Your task to perform on an android device: Open Android settings Image 0: 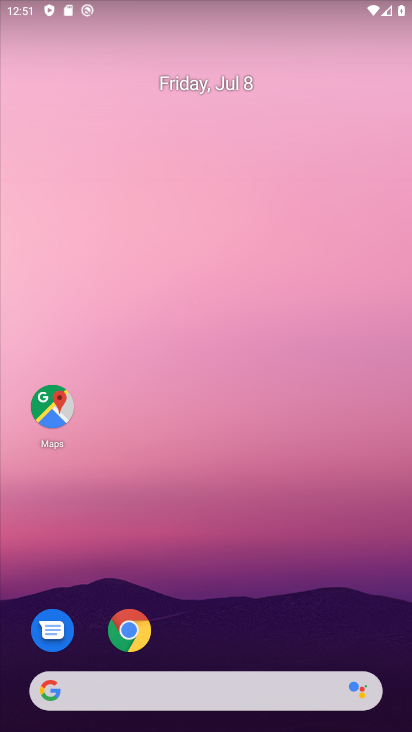
Step 0: drag from (194, 634) to (263, 114)
Your task to perform on an android device: Open Android settings Image 1: 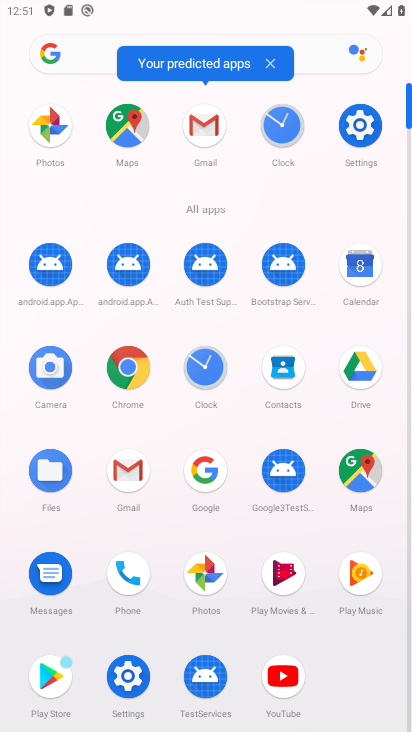
Step 1: click (120, 678)
Your task to perform on an android device: Open Android settings Image 2: 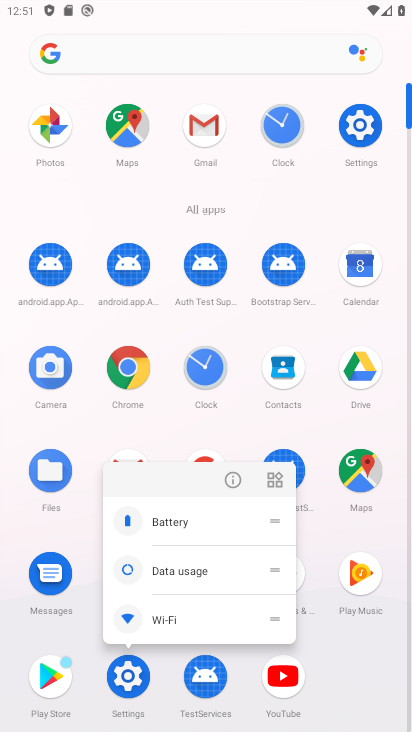
Step 2: click (123, 680)
Your task to perform on an android device: Open Android settings Image 3: 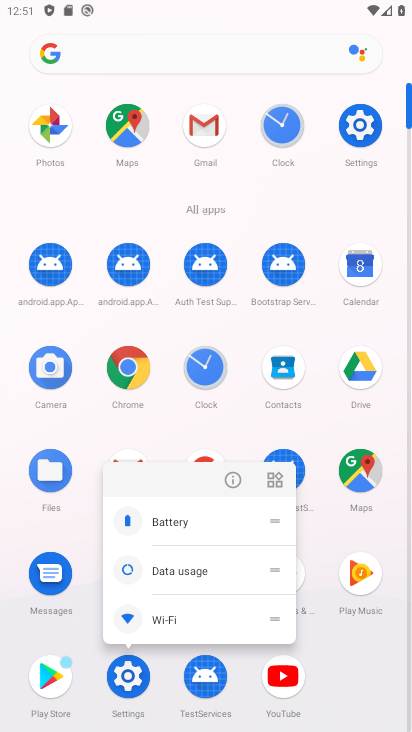
Step 3: click (123, 680)
Your task to perform on an android device: Open Android settings Image 4: 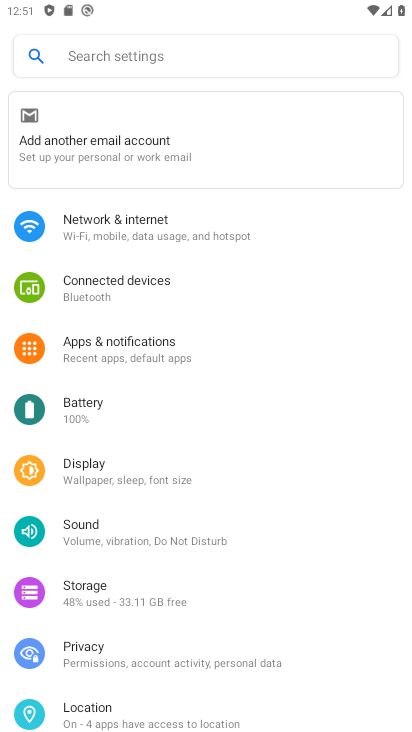
Step 4: task complete